Your task to perform on an android device: Toggle the flashlight Image 0: 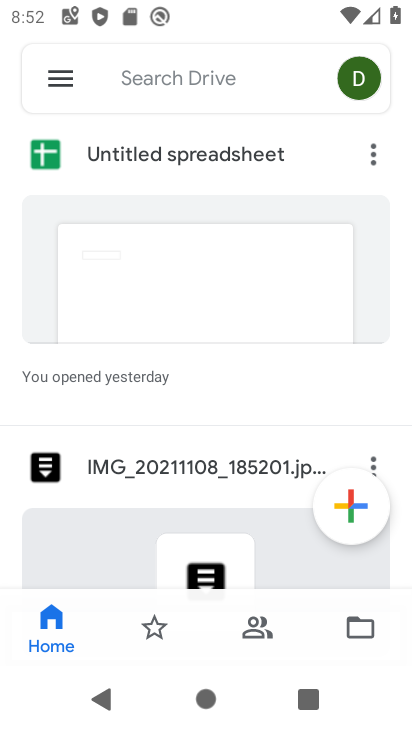
Step 0: press home button
Your task to perform on an android device: Toggle the flashlight Image 1: 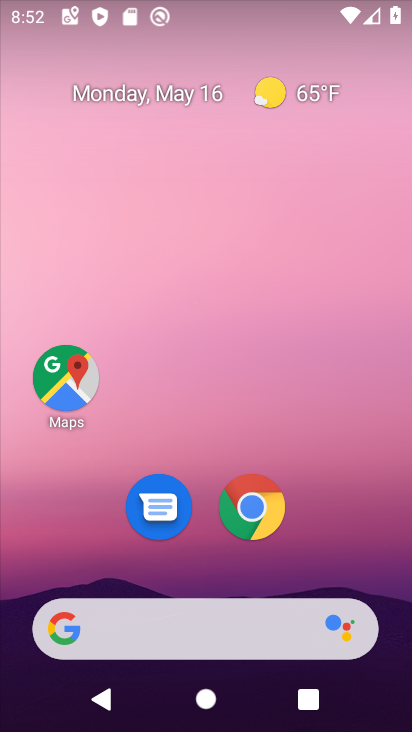
Step 1: drag from (225, 602) to (136, 5)
Your task to perform on an android device: Toggle the flashlight Image 2: 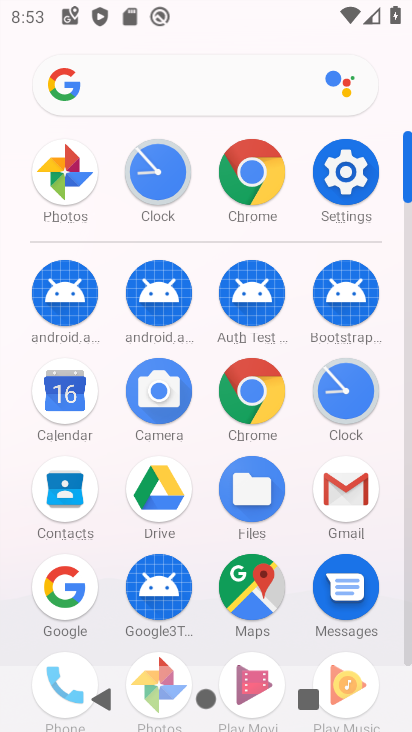
Step 2: click (323, 174)
Your task to perform on an android device: Toggle the flashlight Image 3: 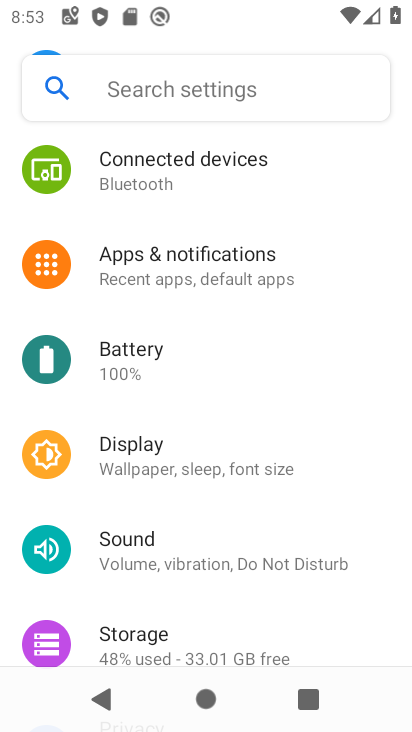
Step 3: task complete